Your task to perform on an android device: turn off improve location accuracy Image 0: 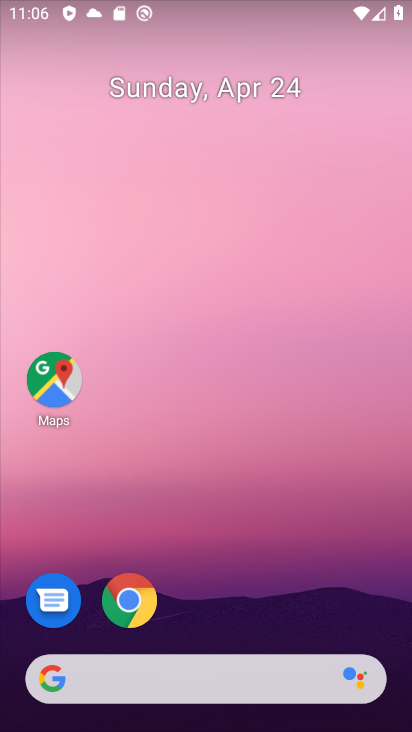
Step 0: drag from (258, 529) to (263, 1)
Your task to perform on an android device: turn off improve location accuracy Image 1: 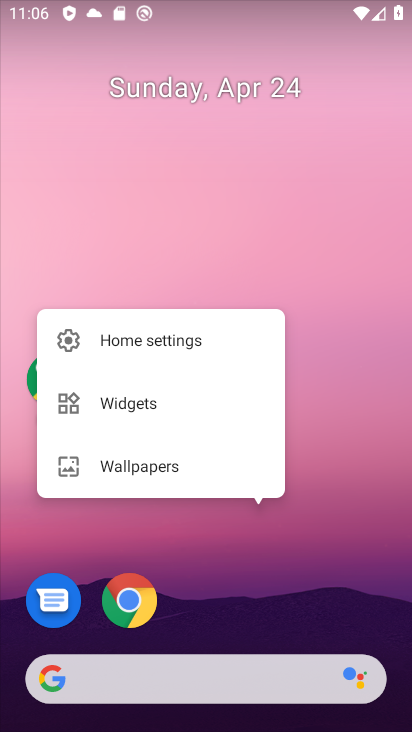
Step 1: click (235, 591)
Your task to perform on an android device: turn off improve location accuracy Image 2: 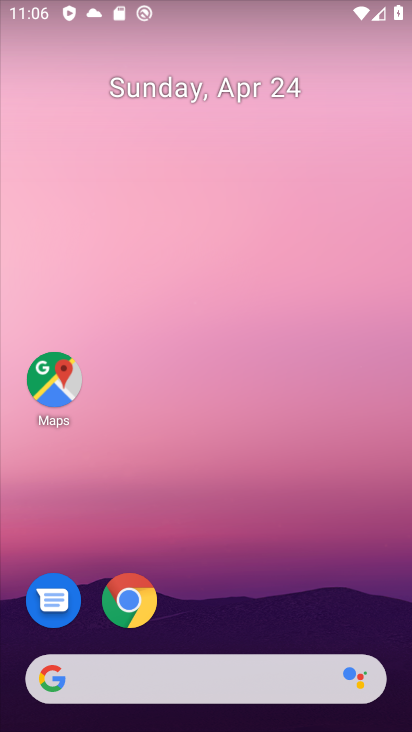
Step 2: drag from (231, 591) to (129, 58)
Your task to perform on an android device: turn off improve location accuracy Image 3: 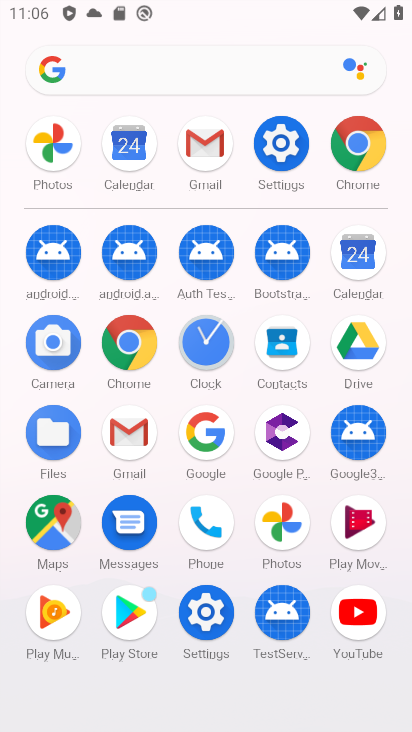
Step 3: click (277, 145)
Your task to perform on an android device: turn off improve location accuracy Image 4: 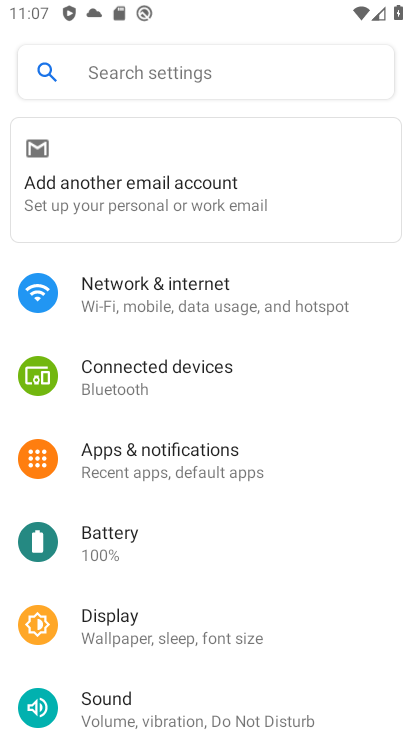
Step 4: drag from (221, 607) to (281, 100)
Your task to perform on an android device: turn off improve location accuracy Image 5: 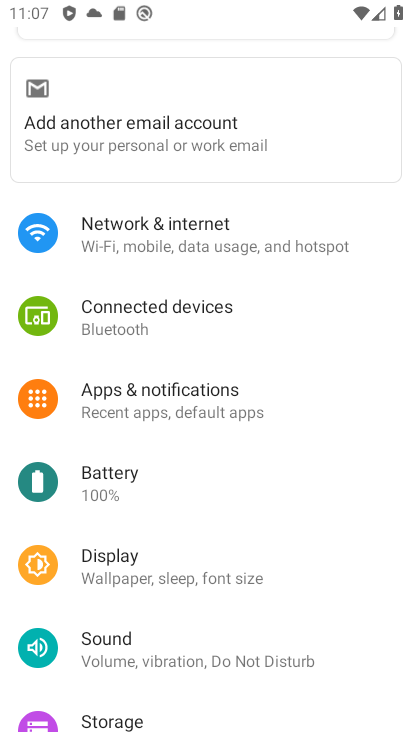
Step 5: drag from (193, 613) to (168, 281)
Your task to perform on an android device: turn off improve location accuracy Image 6: 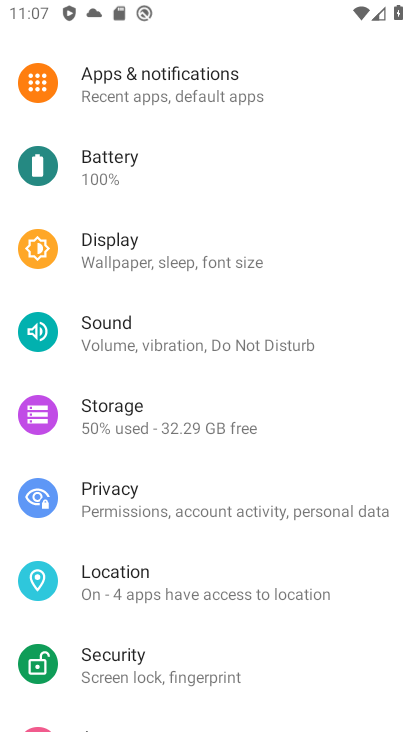
Step 6: click (112, 571)
Your task to perform on an android device: turn off improve location accuracy Image 7: 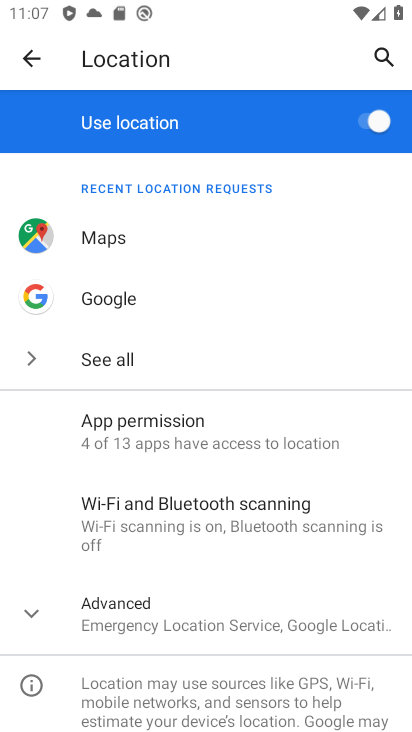
Step 7: click (46, 610)
Your task to perform on an android device: turn off improve location accuracy Image 8: 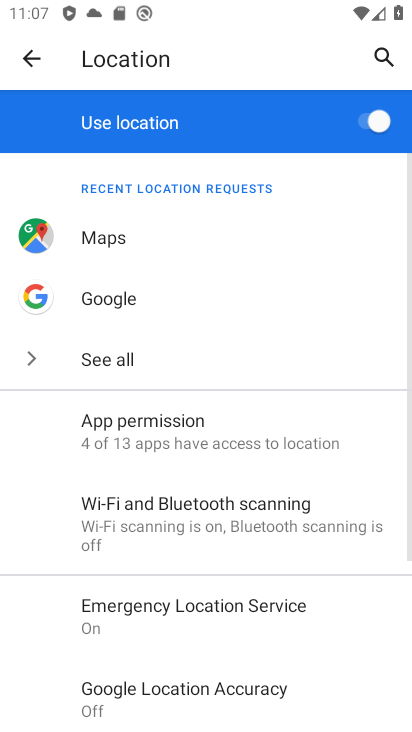
Step 8: click (187, 551)
Your task to perform on an android device: turn off improve location accuracy Image 9: 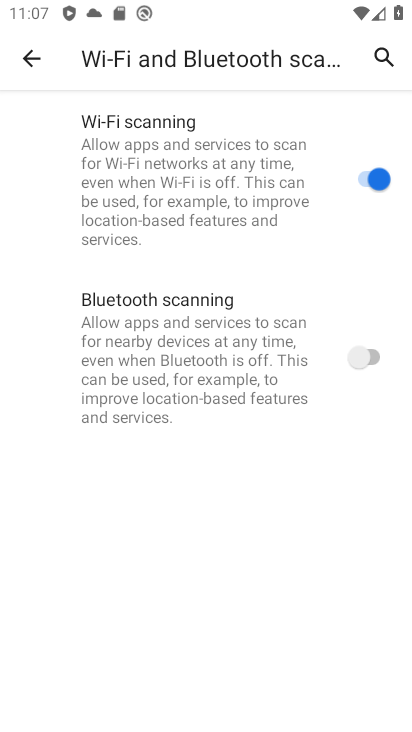
Step 9: drag from (200, 616) to (167, 283)
Your task to perform on an android device: turn off improve location accuracy Image 10: 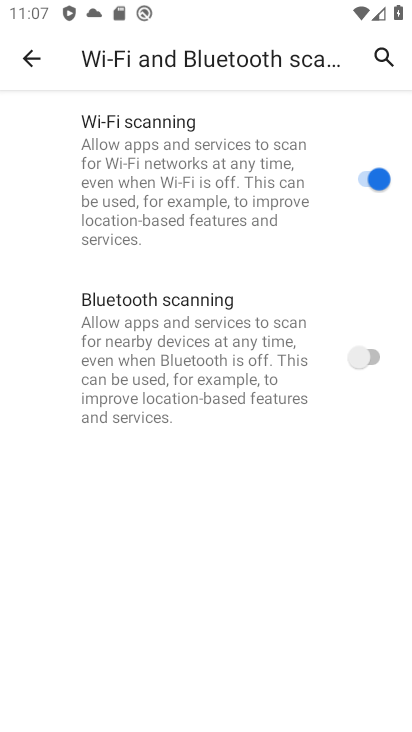
Step 10: click (28, 52)
Your task to perform on an android device: turn off improve location accuracy Image 11: 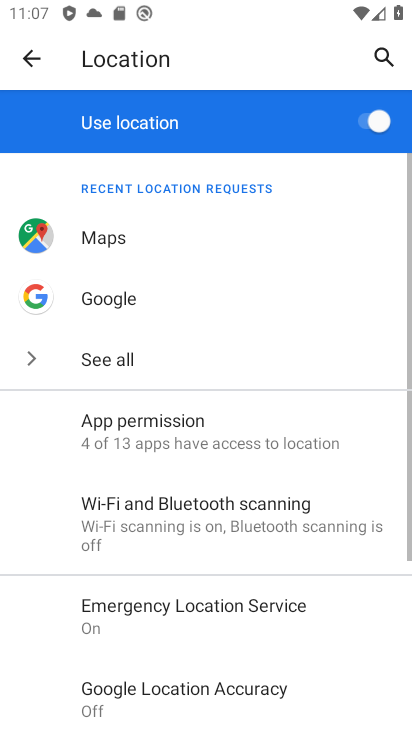
Step 11: click (195, 681)
Your task to perform on an android device: turn off improve location accuracy Image 12: 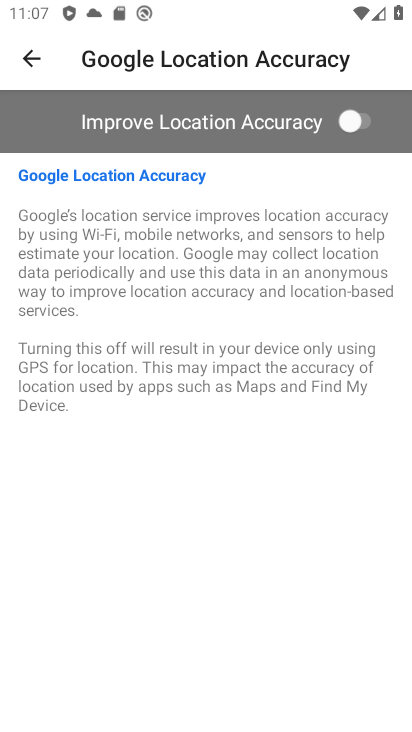
Step 12: task complete